Your task to perform on an android device: Is it going to rain this weekend? Image 0: 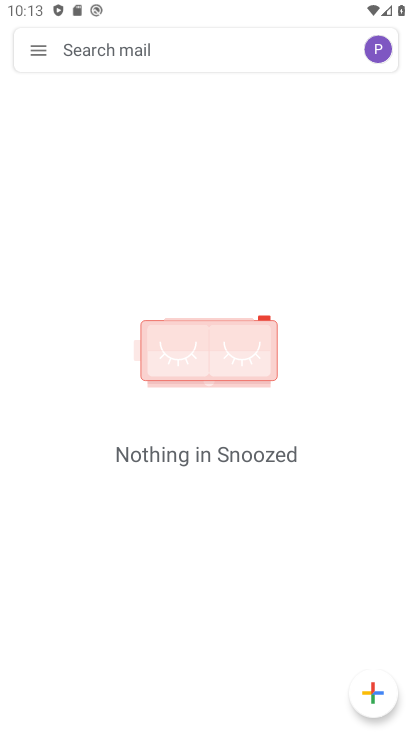
Step 0: press home button
Your task to perform on an android device: Is it going to rain this weekend? Image 1: 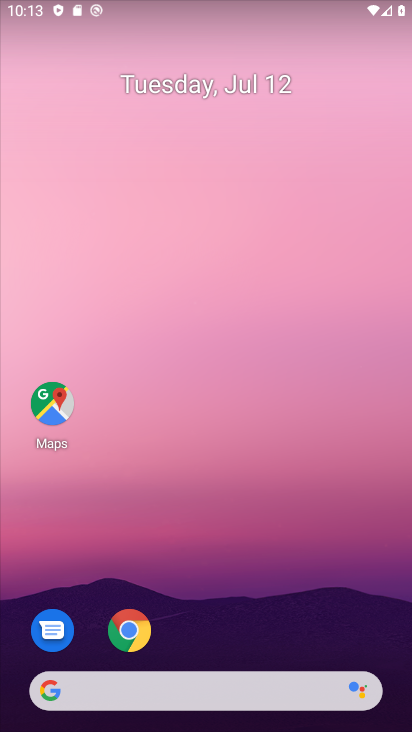
Step 1: click (245, 690)
Your task to perform on an android device: Is it going to rain this weekend? Image 2: 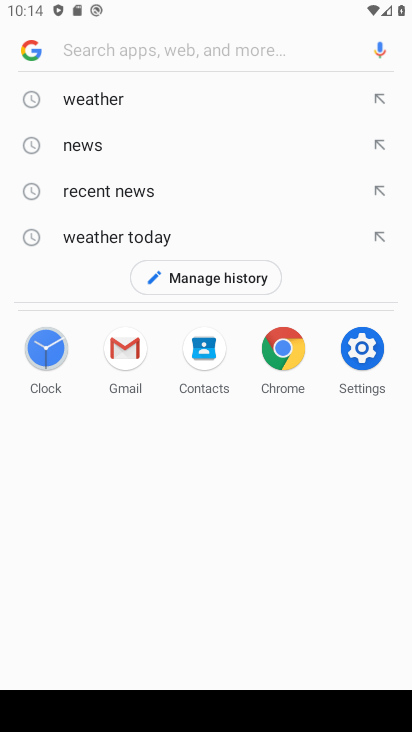
Step 2: click (130, 103)
Your task to perform on an android device: Is it going to rain this weekend? Image 3: 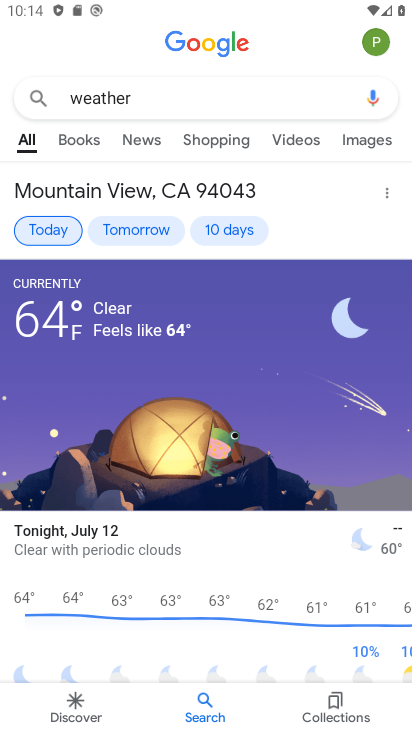
Step 3: click (230, 234)
Your task to perform on an android device: Is it going to rain this weekend? Image 4: 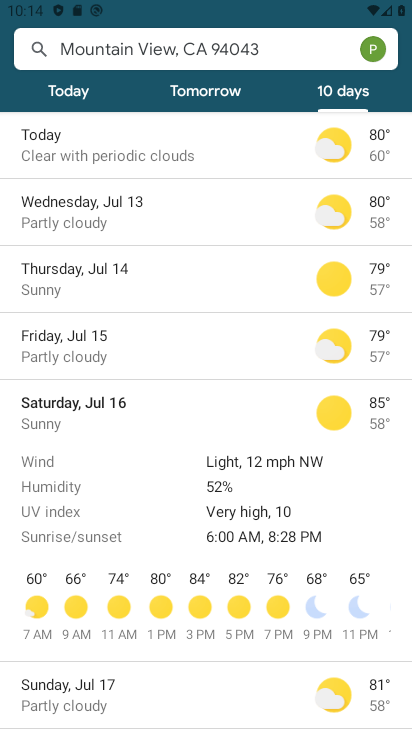
Step 4: task complete